Your task to perform on an android device: turn off airplane mode Image 0: 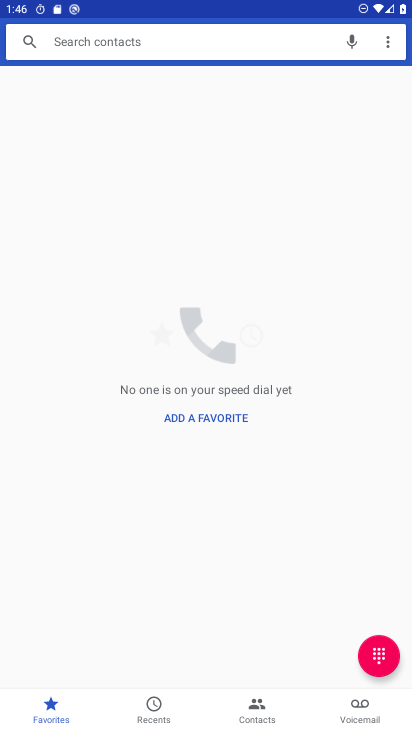
Step 0: drag from (328, 16) to (319, 283)
Your task to perform on an android device: turn off airplane mode Image 1: 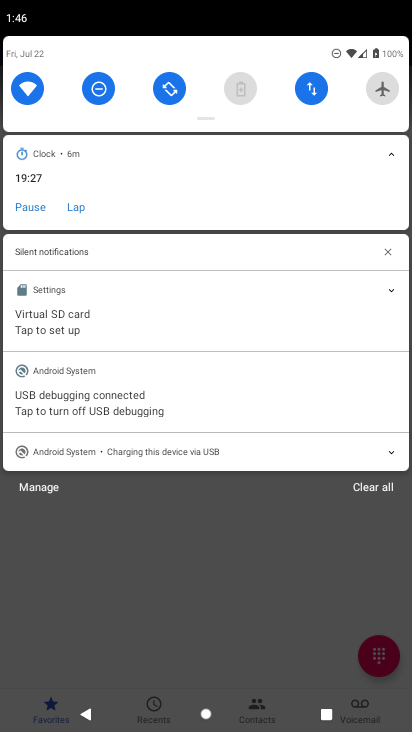
Step 1: task complete